Your task to perform on an android device: clear history in the chrome app Image 0: 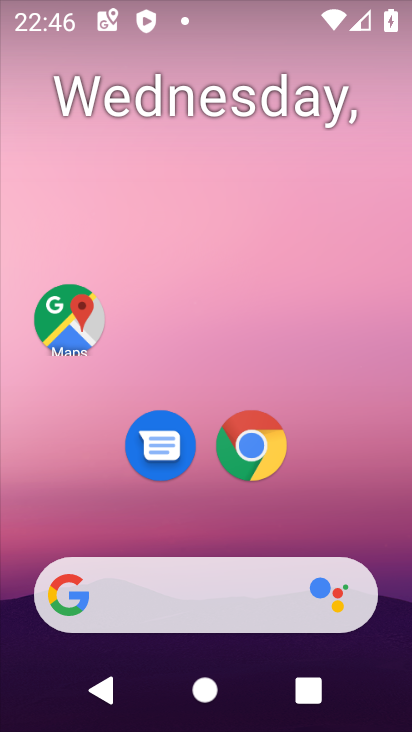
Step 0: click (256, 428)
Your task to perform on an android device: clear history in the chrome app Image 1: 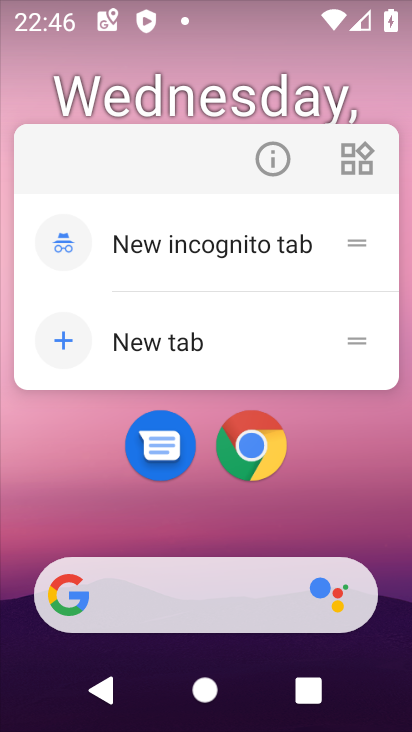
Step 1: click (251, 439)
Your task to perform on an android device: clear history in the chrome app Image 2: 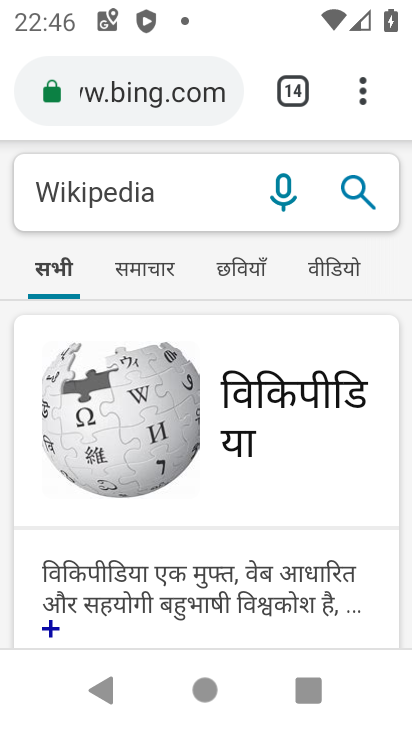
Step 2: click (360, 90)
Your task to perform on an android device: clear history in the chrome app Image 3: 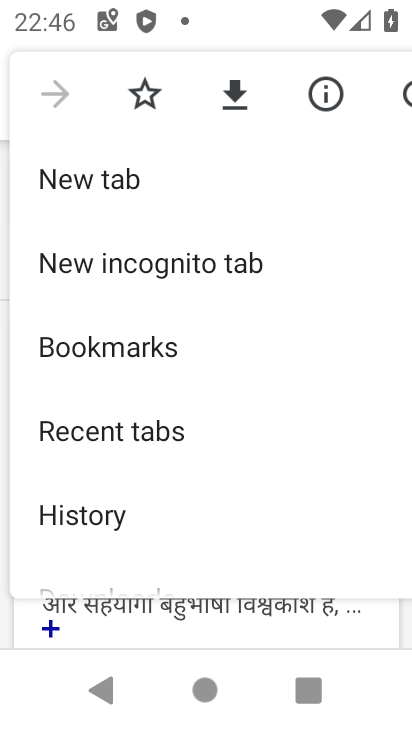
Step 3: click (144, 515)
Your task to perform on an android device: clear history in the chrome app Image 4: 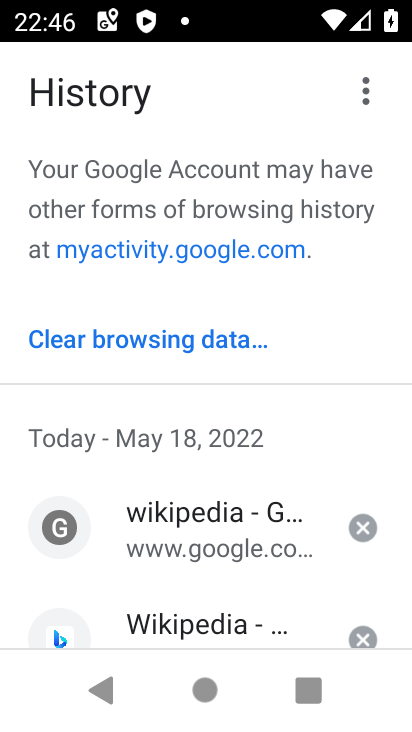
Step 4: click (175, 339)
Your task to perform on an android device: clear history in the chrome app Image 5: 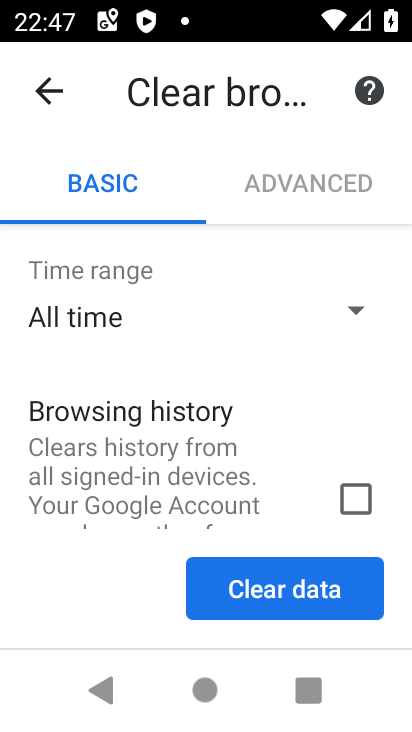
Step 5: click (340, 483)
Your task to perform on an android device: clear history in the chrome app Image 6: 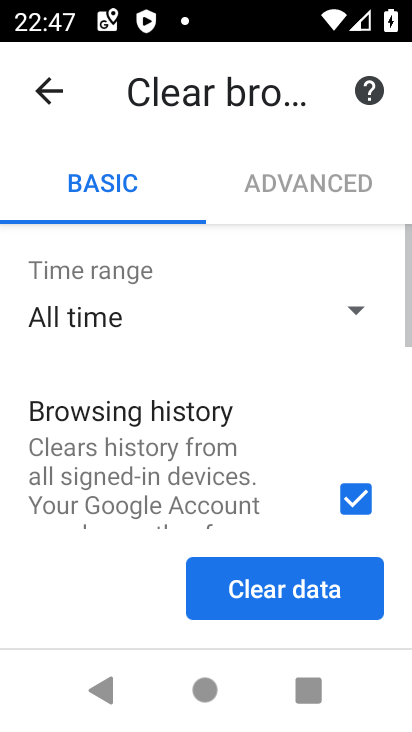
Step 6: click (324, 587)
Your task to perform on an android device: clear history in the chrome app Image 7: 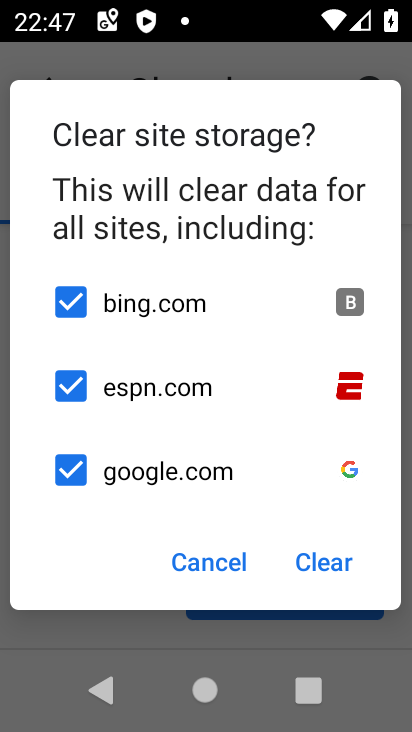
Step 7: click (337, 560)
Your task to perform on an android device: clear history in the chrome app Image 8: 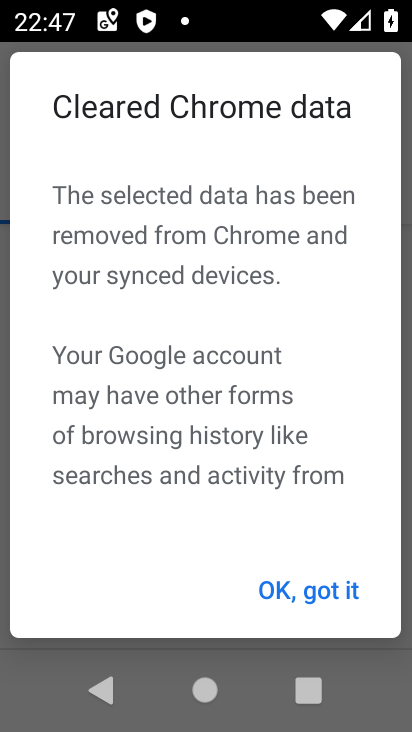
Step 8: click (347, 594)
Your task to perform on an android device: clear history in the chrome app Image 9: 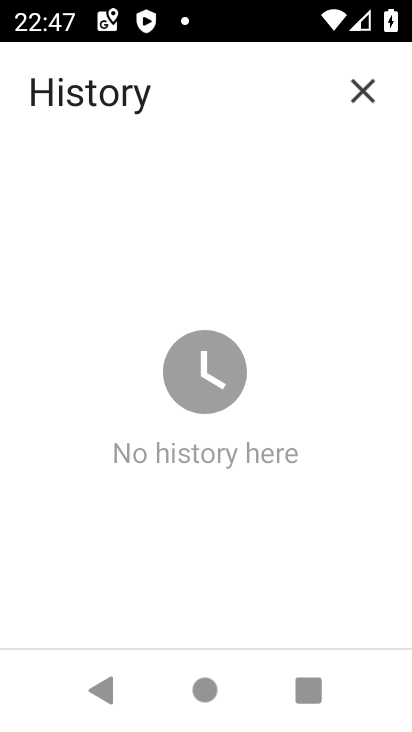
Step 9: task complete